Your task to perform on an android device: Open Amazon Image 0: 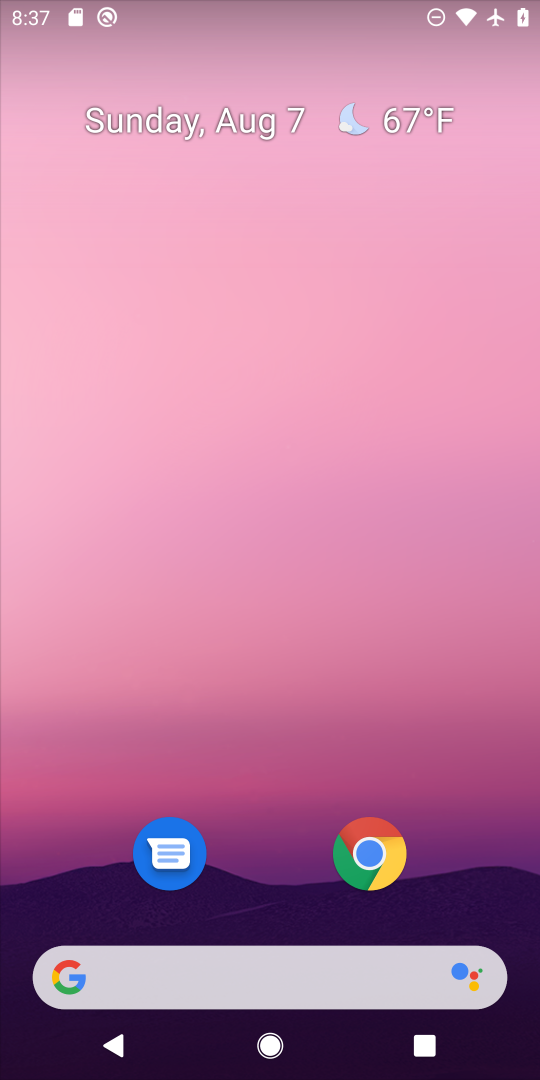
Step 0: drag from (334, 980) to (289, 84)
Your task to perform on an android device: Open Amazon Image 1: 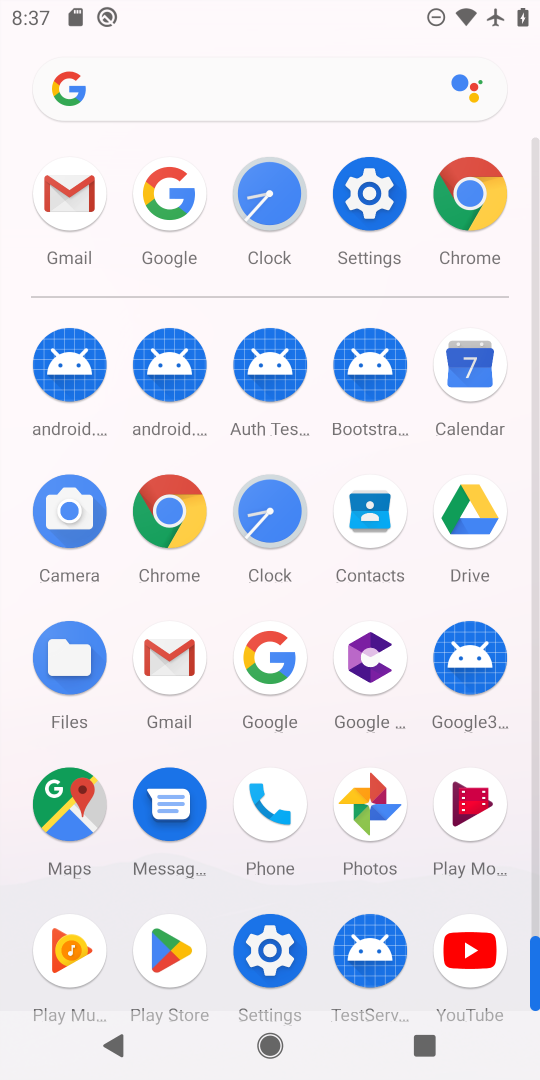
Step 1: click (480, 237)
Your task to perform on an android device: Open Amazon Image 2: 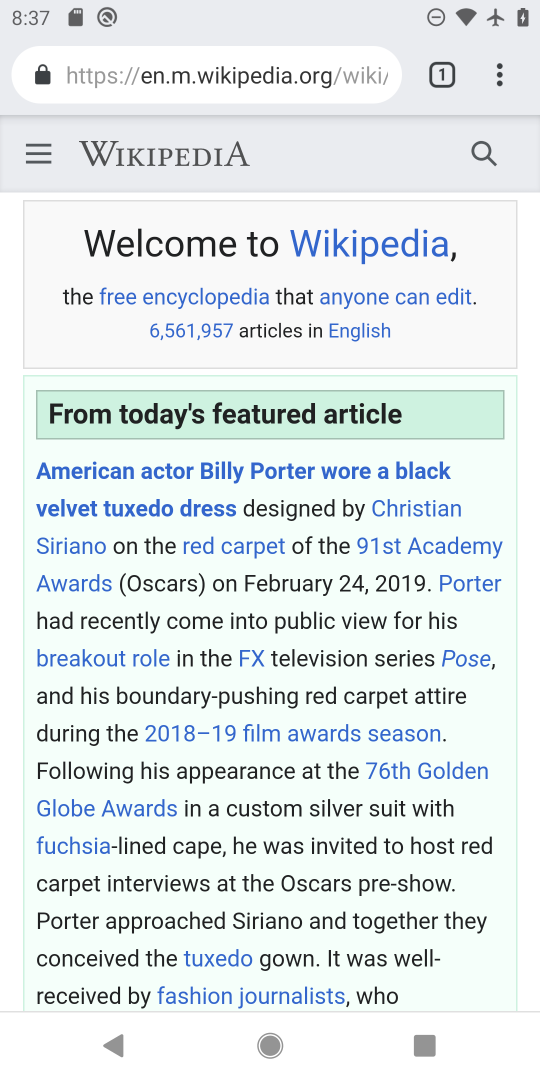
Step 2: drag from (442, 63) to (374, 380)
Your task to perform on an android device: Open Amazon Image 3: 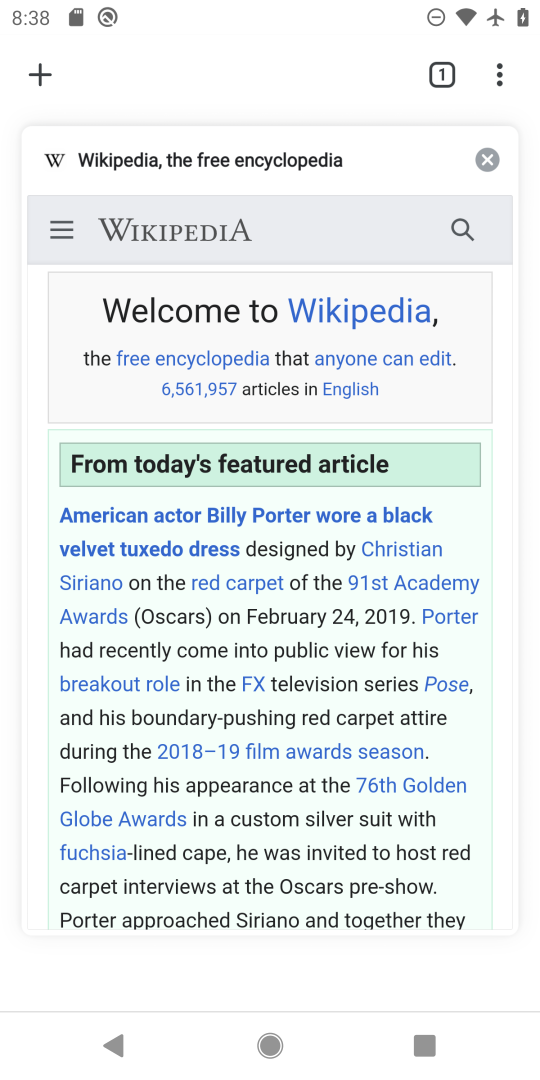
Step 3: click (27, 81)
Your task to perform on an android device: Open Amazon Image 4: 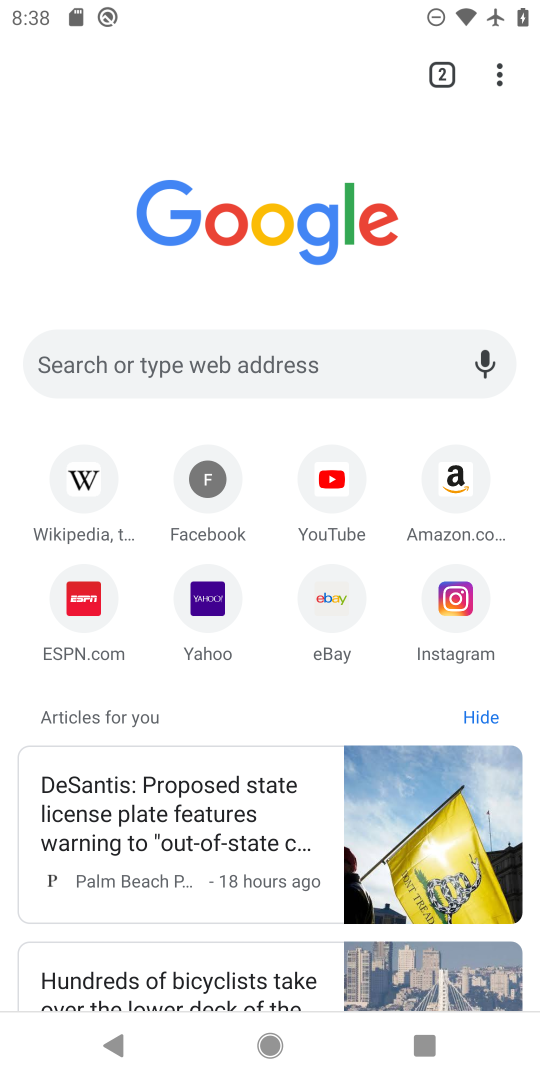
Step 4: click (446, 505)
Your task to perform on an android device: Open Amazon Image 5: 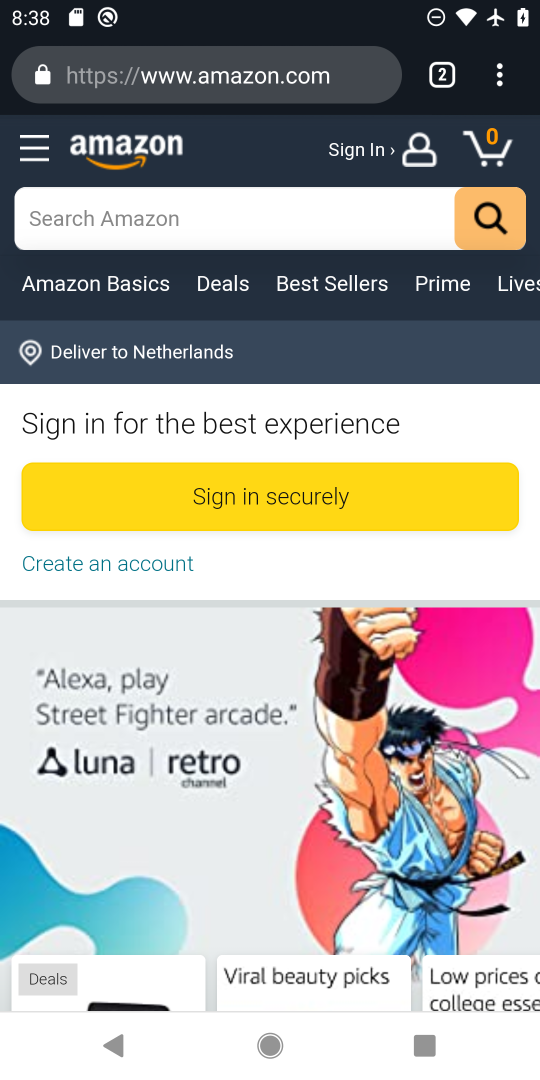
Step 5: task complete